Your task to perform on an android device: Open wifi settings Image 0: 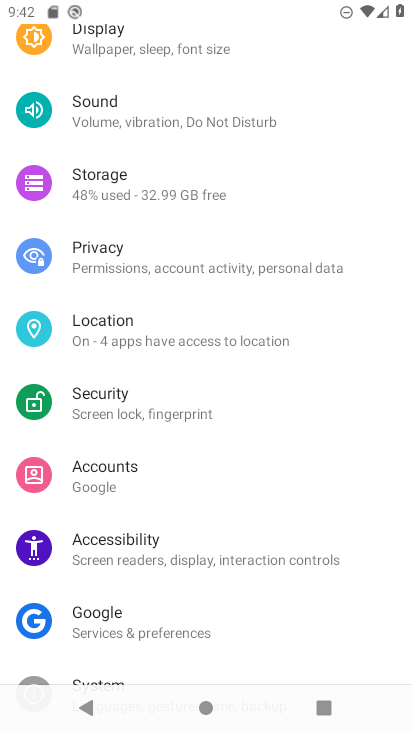
Step 0: drag from (213, 78) to (208, 564)
Your task to perform on an android device: Open wifi settings Image 1: 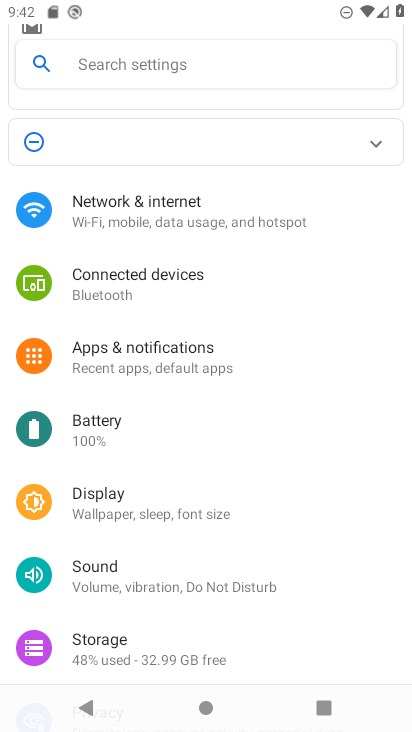
Step 1: click (140, 211)
Your task to perform on an android device: Open wifi settings Image 2: 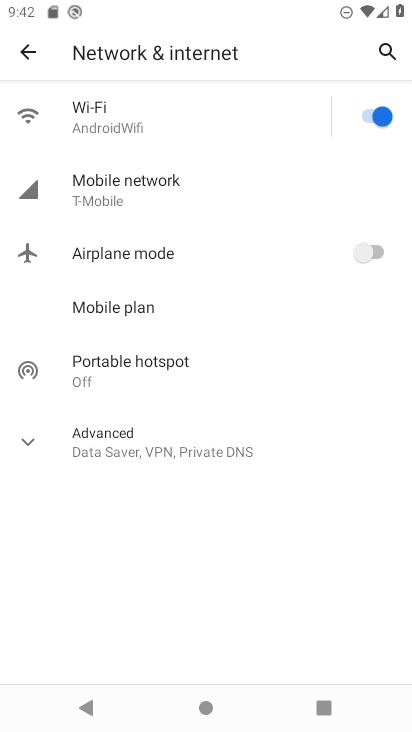
Step 2: click (89, 116)
Your task to perform on an android device: Open wifi settings Image 3: 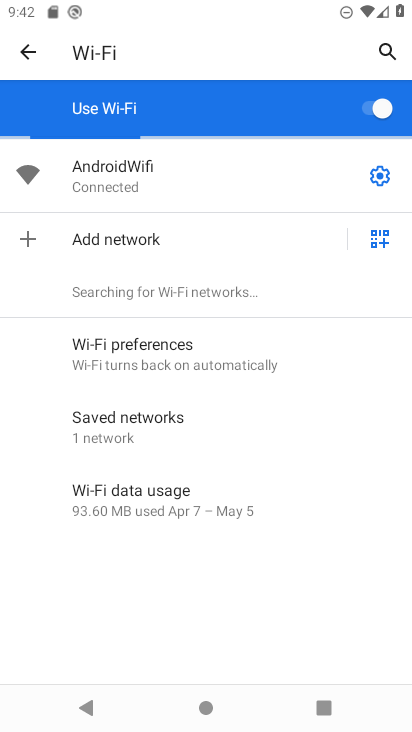
Step 3: task complete